Your task to perform on an android device: turn off data saver in the chrome app Image 0: 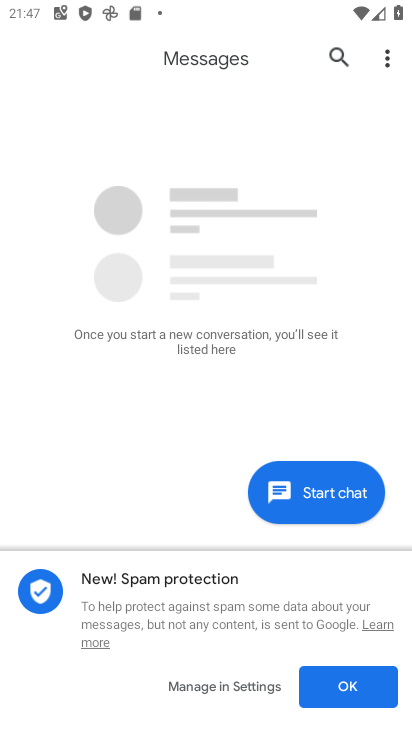
Step 0: press home button
Your task to perform on an android device: turn off data saver in the chrome app Image 1: 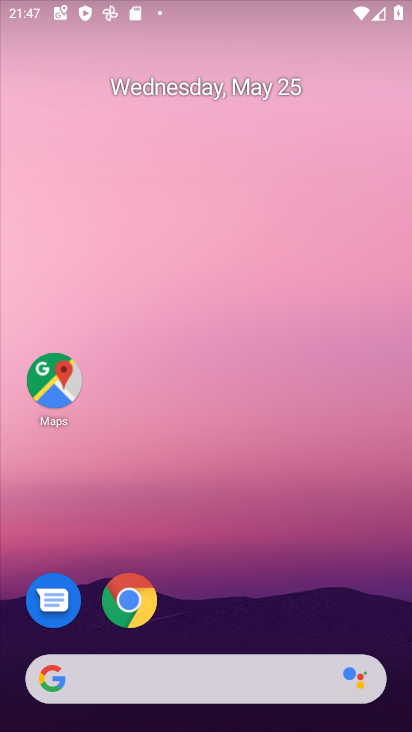
Step 1: drag from (347, 618) to (369, 170)
Your task to perform on an android device: turn off data saver in the chrome app Image 2: 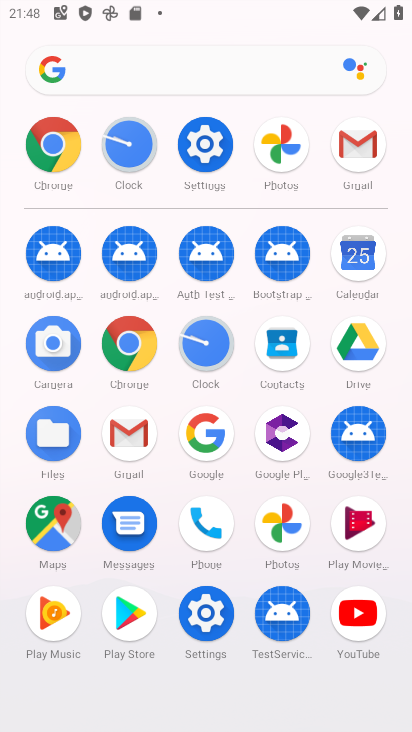
Step 2: click (115, 327)
Your task to perform on an android device: turn off data saver in the chrome app Image 3: 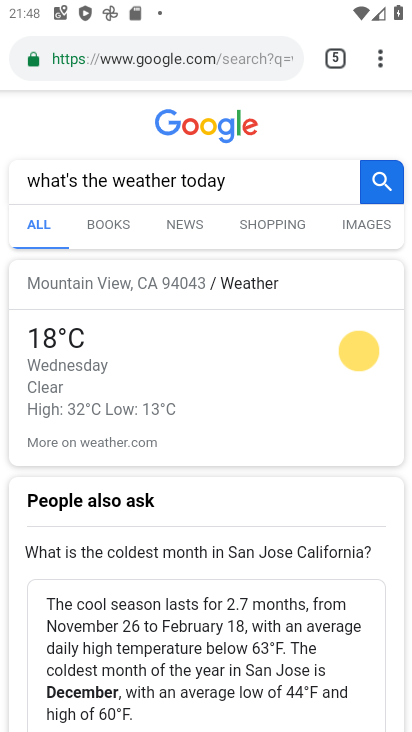
Step 3: task complete